Your task to perform on an android device: find snoozed emails in the gmail app Image 0: 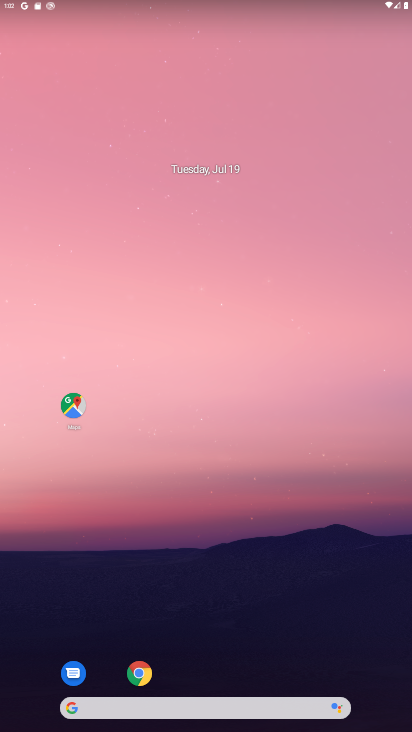
Step 0: drag from (245, 720) to (245, 245)
Your task to perform on an android device: find snoozed emails in the gmail app Image 1: 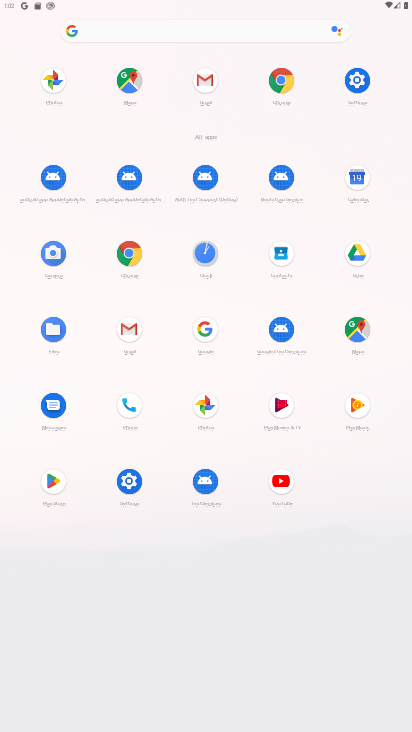
Step 1: click (201, 80)
Your task to perform on an android device: find snoozed emails in the gmail app Image 2: 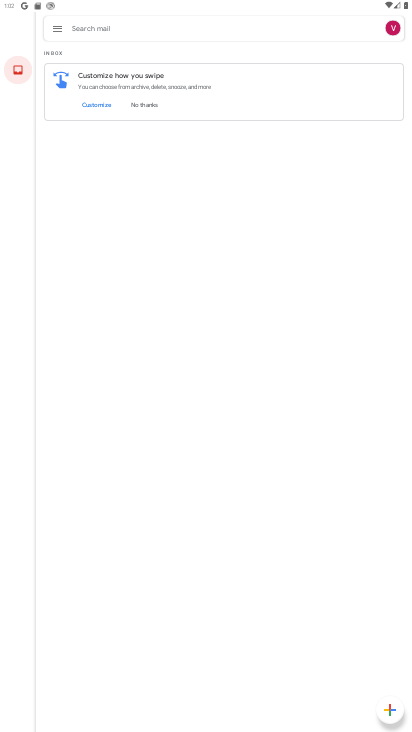
Step 2: click (59, 25)
Your task to perform on an android device: find snoozed emails in the gmail app Image 3: 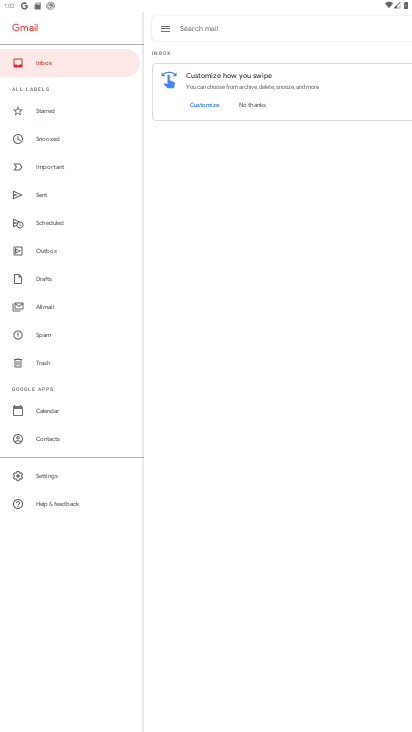
Step 3: click (53, 138)
Your task to perform on an android device: find snoozed emails in the gmail app Image 4: 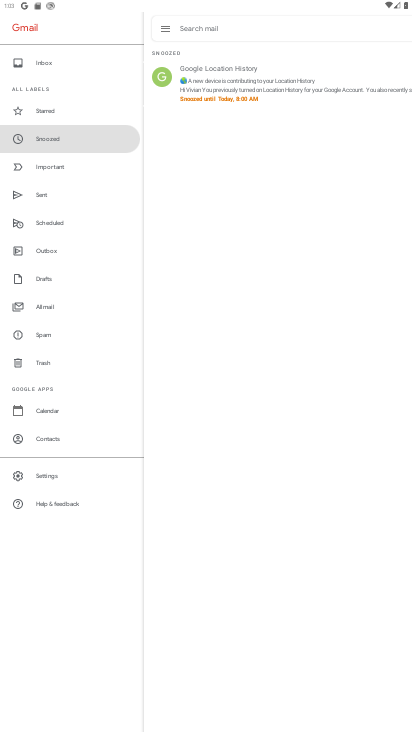
Step 4: task complete